Your task to perform on an android device: toggle notification dots Image 0: 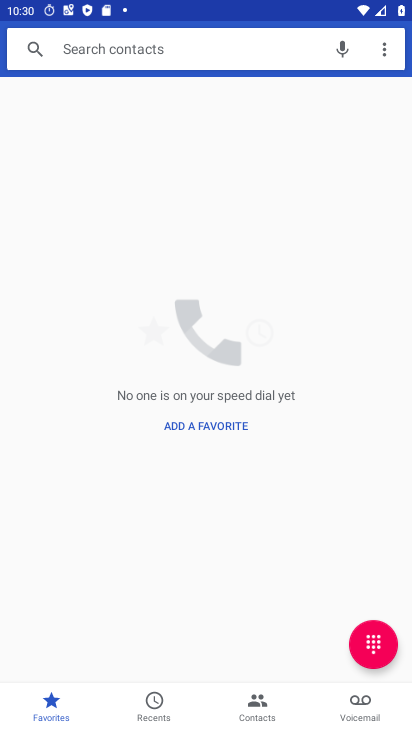
Step 0: press home button
Your task to perform on an android device: toggle notification dots Image 1: 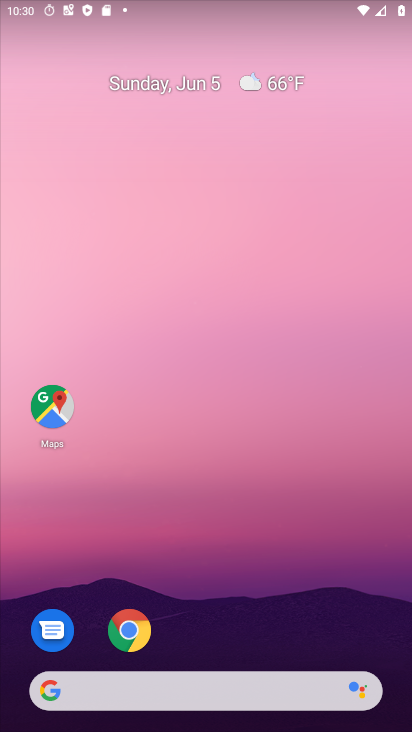
Step 1: drag from (219, 681) to (224, 0)
Your task to perform on an android device: toggle notification dots Image 2: 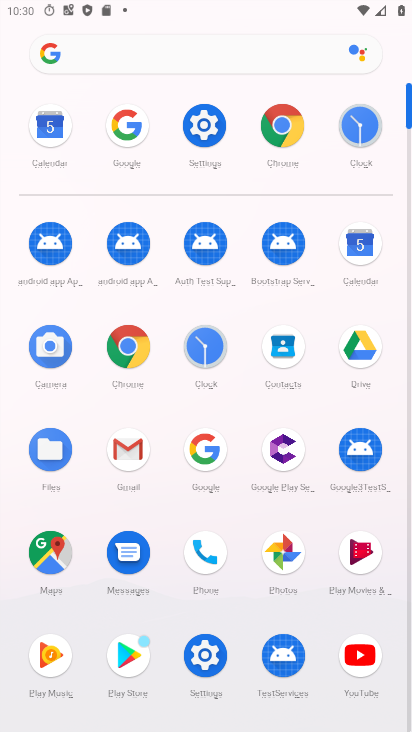
Step 2: click (210, 127)
Your task to perform on an android device: toggle notification dots Image 3: 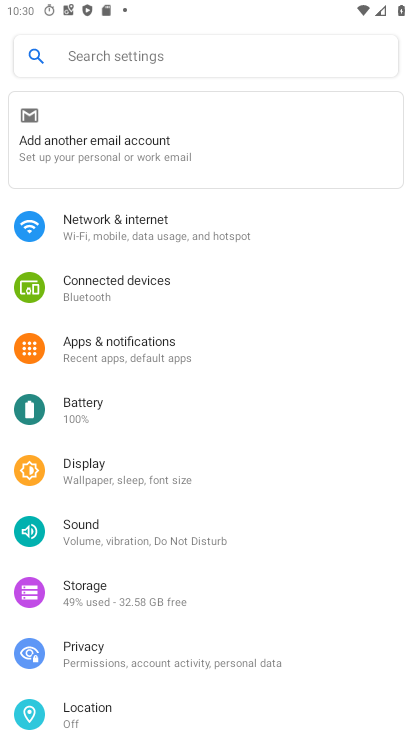
Step 3: click (100, 350)
Your task to perform on an android device: toggle notification dots Image 4: 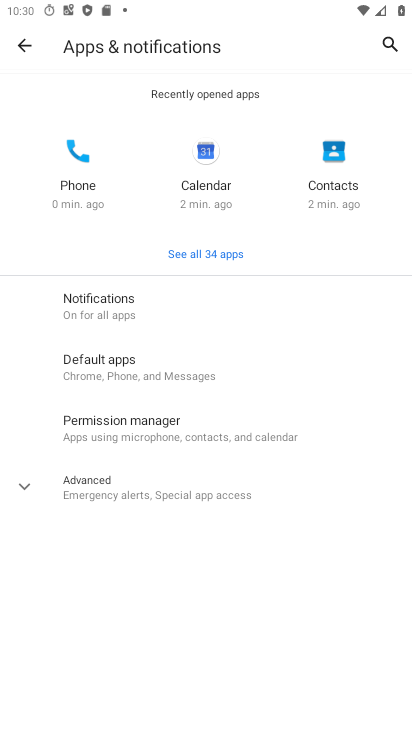
Step 4: click (81, 304)
Your task to perform on an android device: toggle notification dots Image 5: 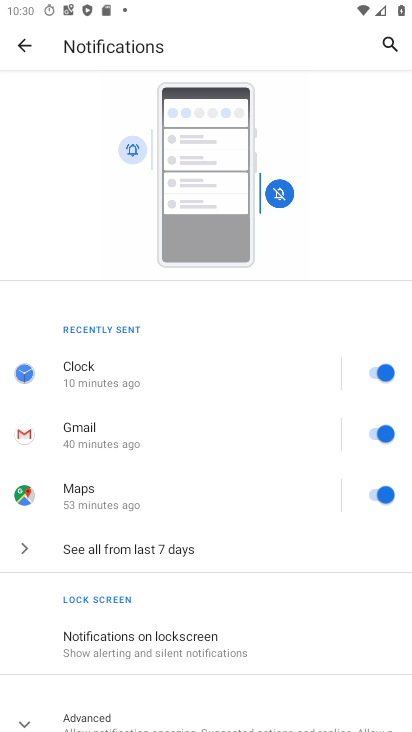
Step 5: drag from (177, 710) to (176, 357)
Your task to perform on an android device: toggle notification dots Image 6: 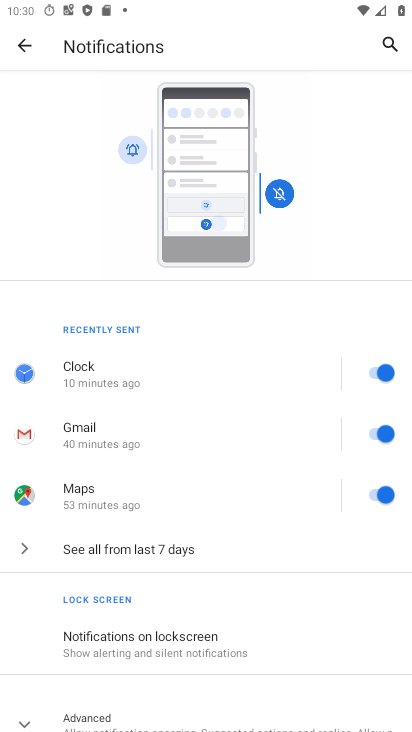
Step 6: click (98, 712)
Your task to perform on an android device: toggle notification dots Image 7: 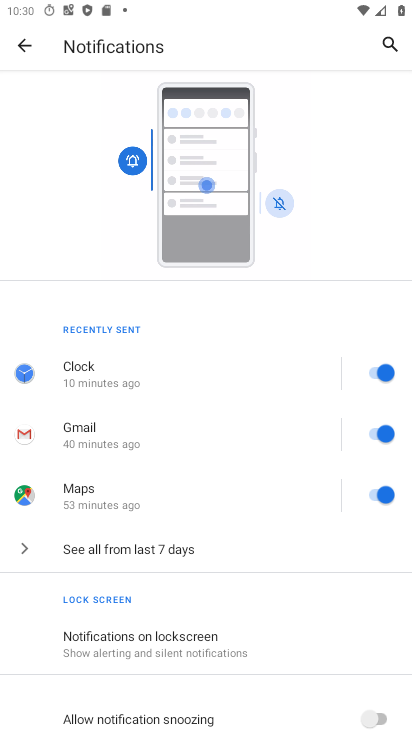
Step 7: drag from (250, 713) to (240, 337)
Your task to perform on an android device: toggle notification dots Image 8: 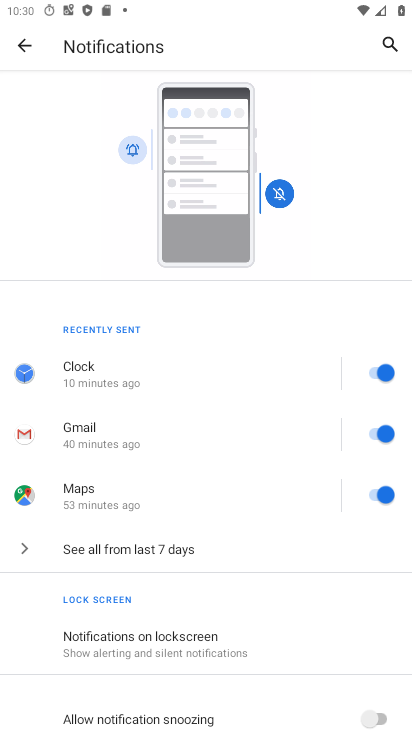
Step 8: drag from (235, 700) to (233, 295)
Your task to perform on an android device: toggle notification dots Image 9: 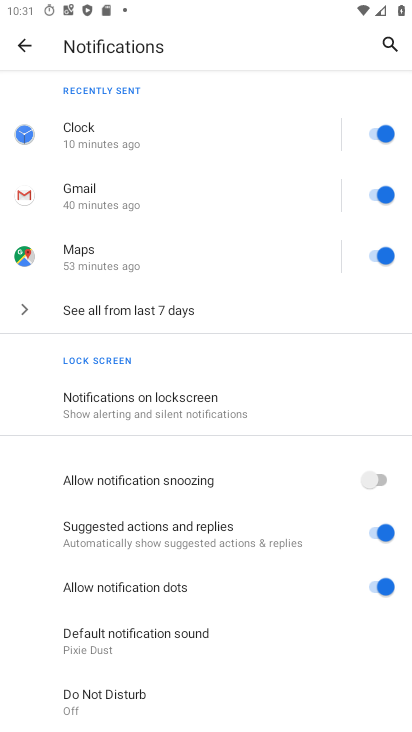
Step 9: click (375, 582)
Your task to perform on an android device: toggle notification dots Image 10: 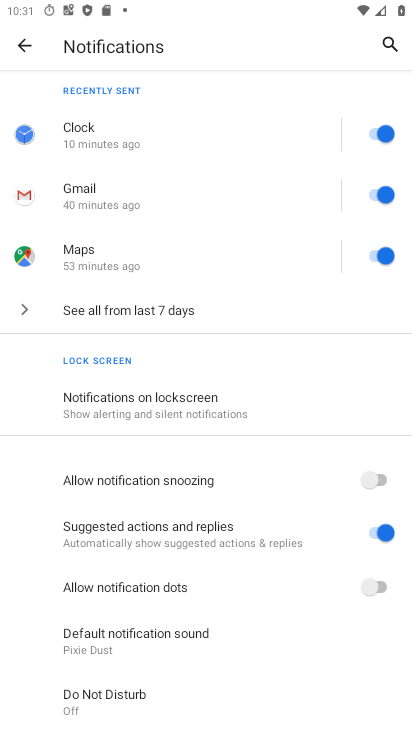
Step 10: task complete